Your task to perform on an android device: Open Google Image 0: 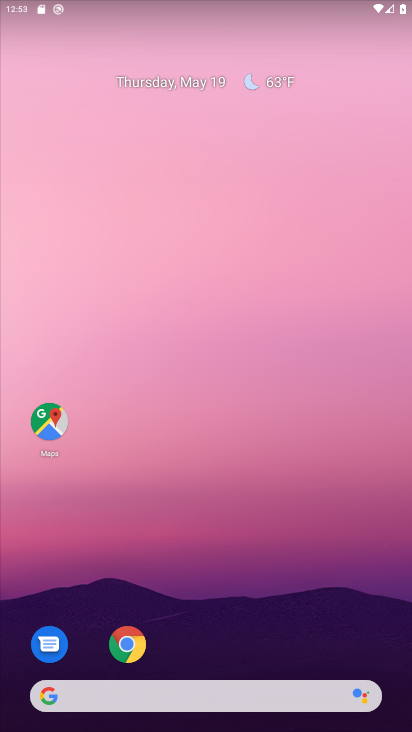
Step 0: drag from (210, 545) to (301, 298)
Your task to perform on an android device: Open Google Image 1: 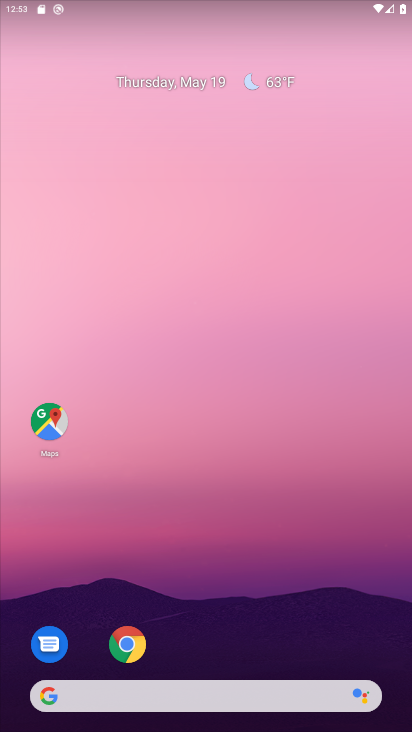
Step 1: drag from (212, 652) to (283, 329)
Your task to perform on an android device: Open Google Image 2: 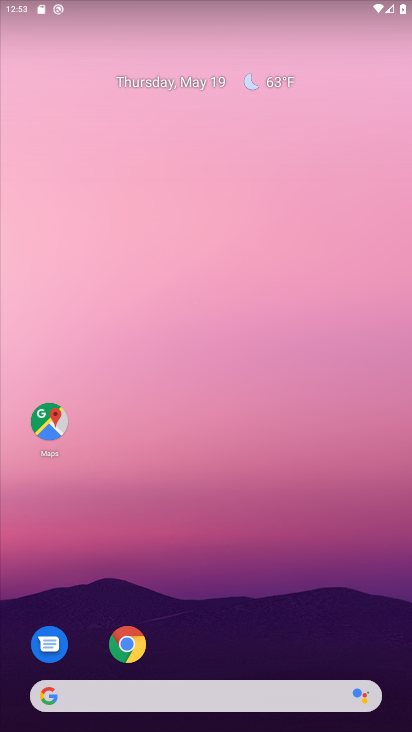
Step 2: drag from (221, 648) to (317, 201)
Your task to perform on an android device: Open Google Image 3: 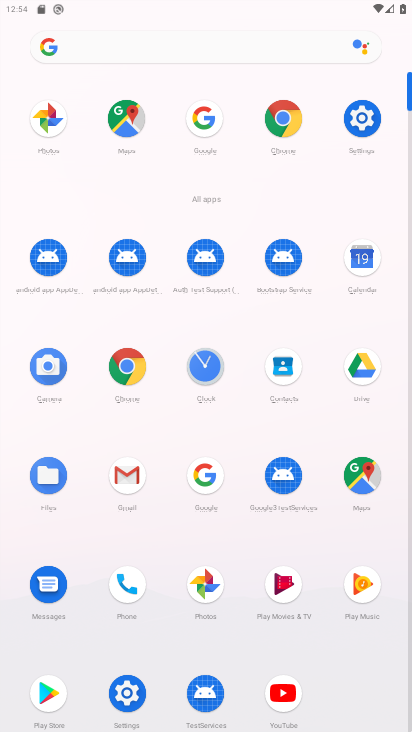
Step 3: click (208, 478)
Your task to perform on an android device: Open Google Image 4: 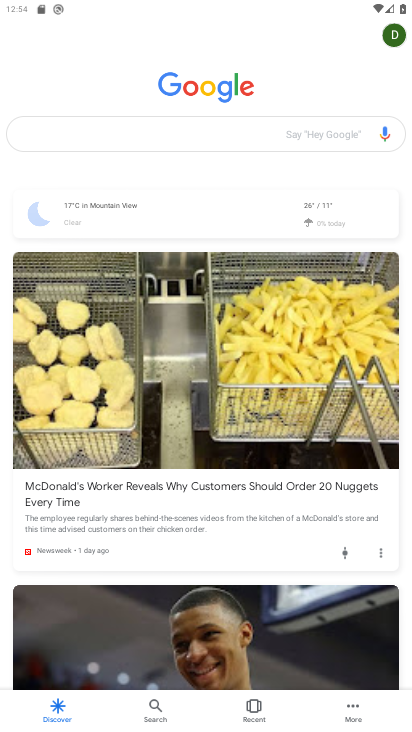
Step 4: task complete